Your task to perform on an android device: Open settings on Google Maps Image 0: 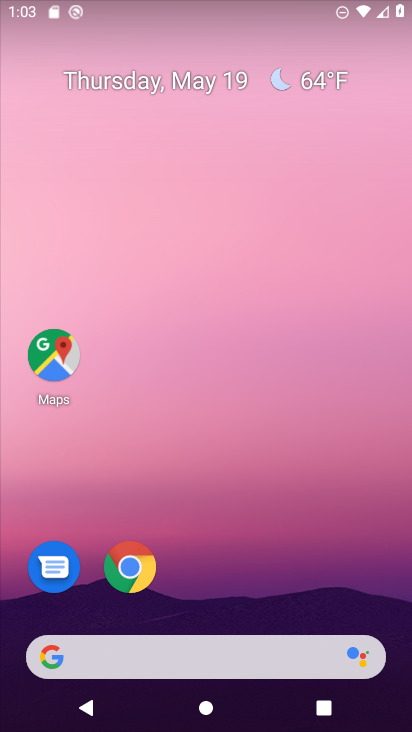
Step 0: click (54, 353)
Your task to perform on an android device: Open settings on Google Maps Image 1: 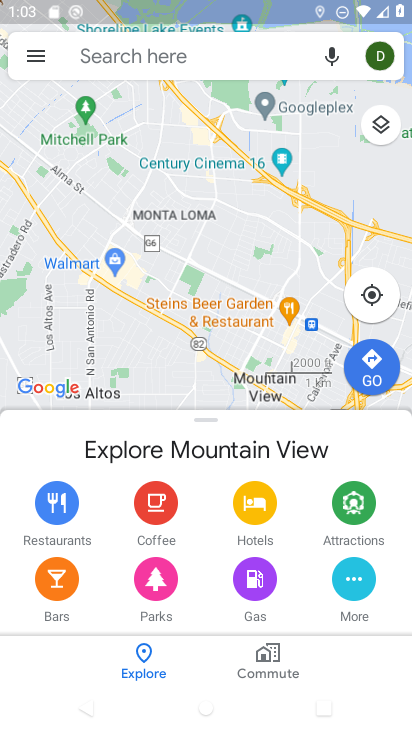
Step 1: click (35, 61)
Your task to perform on an android device: Open settings on Google Maps Image 2: 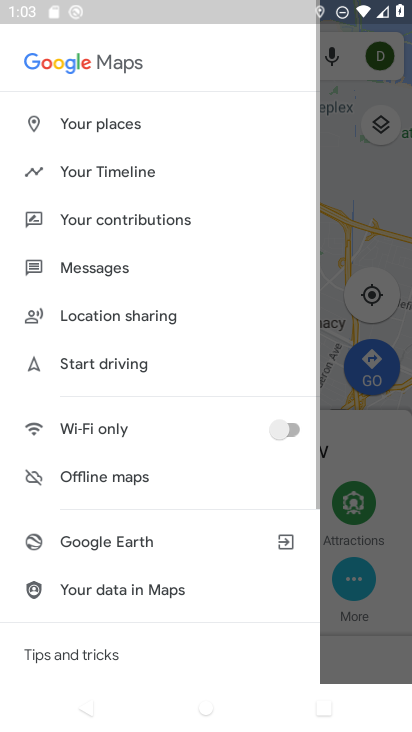
Step 2: drag from (141, 568) to (145, 204)
Your task to perform on an android device: Open settings on Google Maps Image 3: 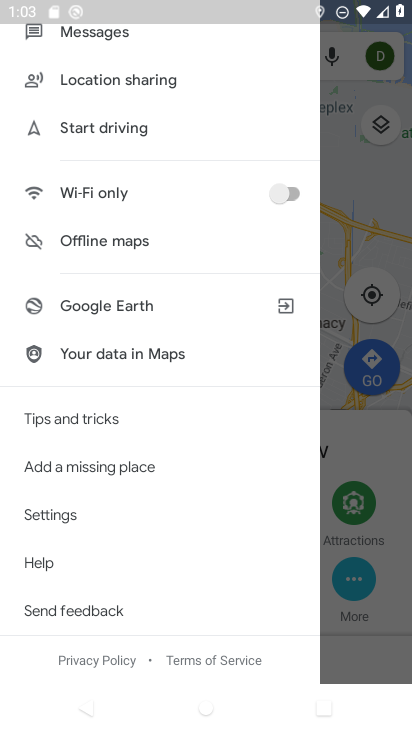
Step 3: click (72, 516)
Your task to perform on an android device: Open settings on Google Maps Image 4: 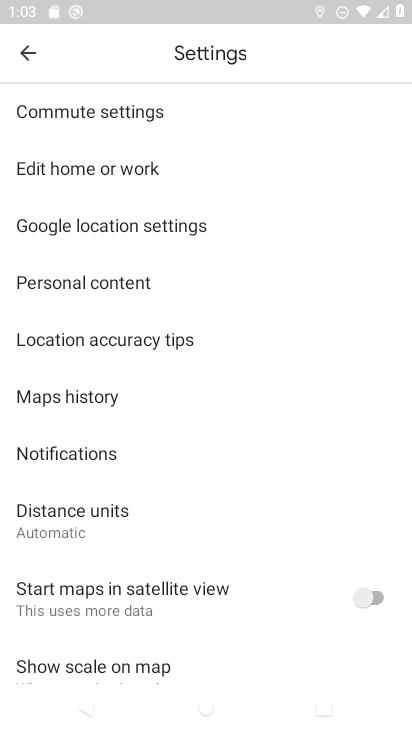
Step 4: task complete